Your task to perform on an android device: Go to wifi settings Image 0: 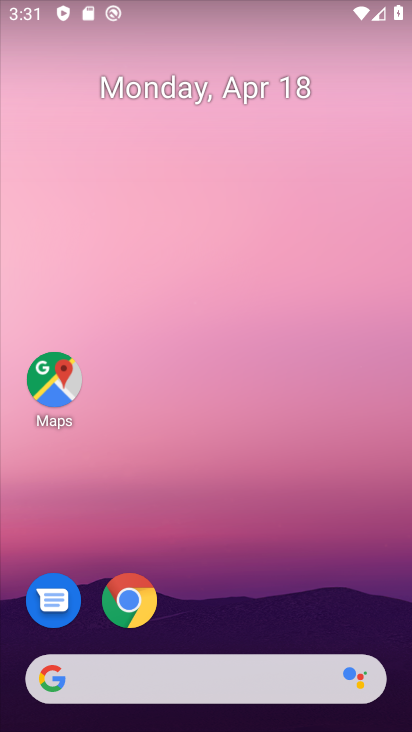
Step 0: drag from (230, 706) to (291, 267)
Your task to perform on an android device: Go to wifi settings Image 1: 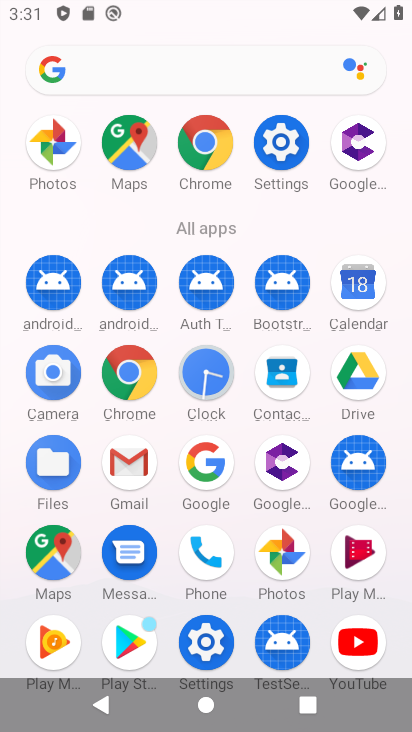
Step 1: click (274, 147)
Your task to perform on an android device: Go to wifi settings Image 2: 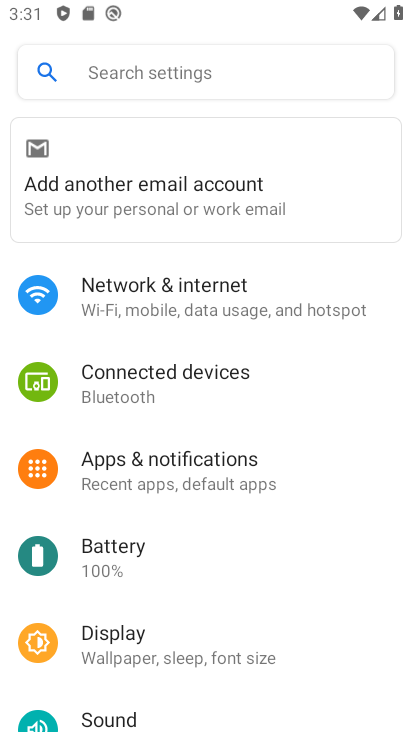
Step 2: click (182, 289)
Your task to perform on an android device: Go to wifi settings Image 3: 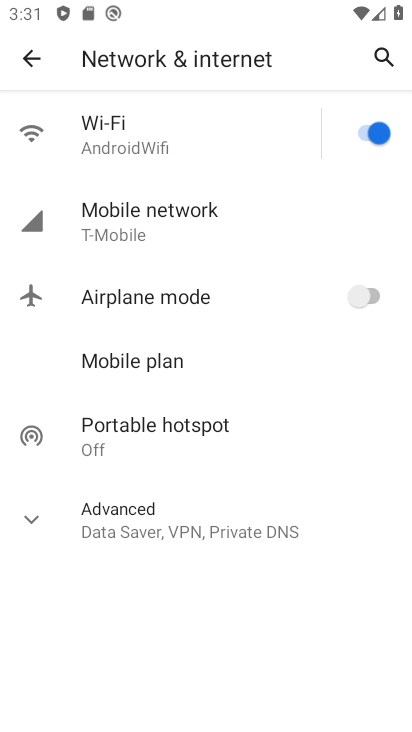
Step 3: click (149, 144)
Your task to perform on an android device: Go to wifi settings Image 4: 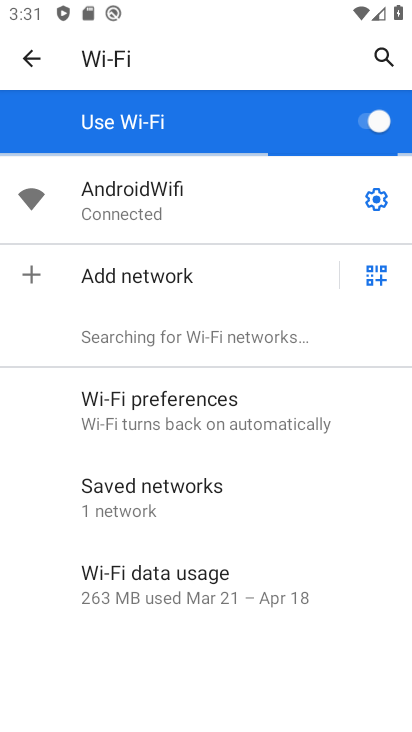
Step 4: click (190, 199)
Your task to perform on an android device: Go to wifi settings Image 5: 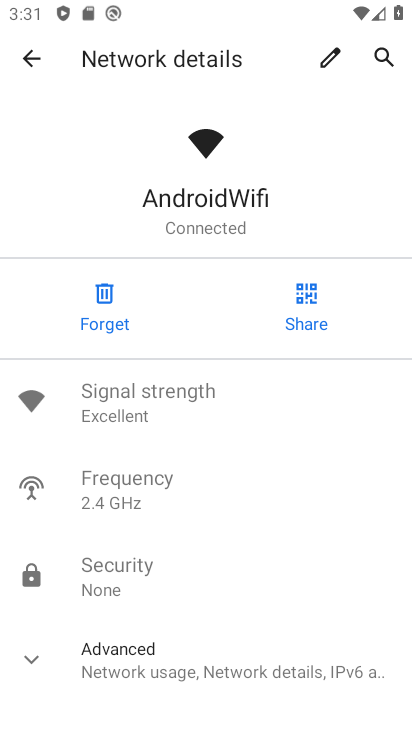
Step 5: task complete